Your task to perform on an android device: Search for Mexican restaurants on Maps Image 0: 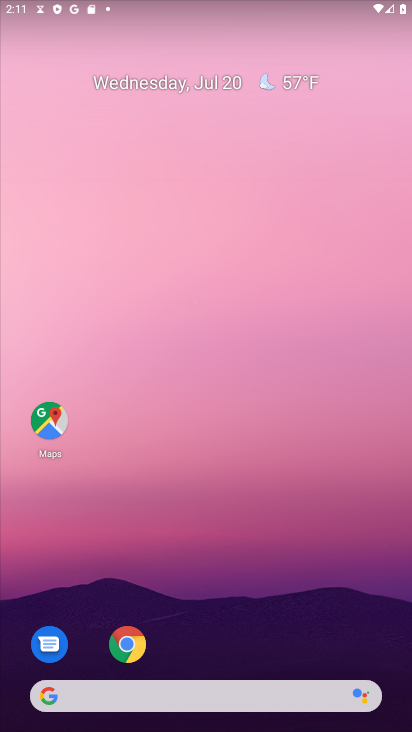
Step 0: drag from (241, 563) to (239, 13)
Your task to perform on an android device: Search for Mexican restaurants on Maps Image 1: 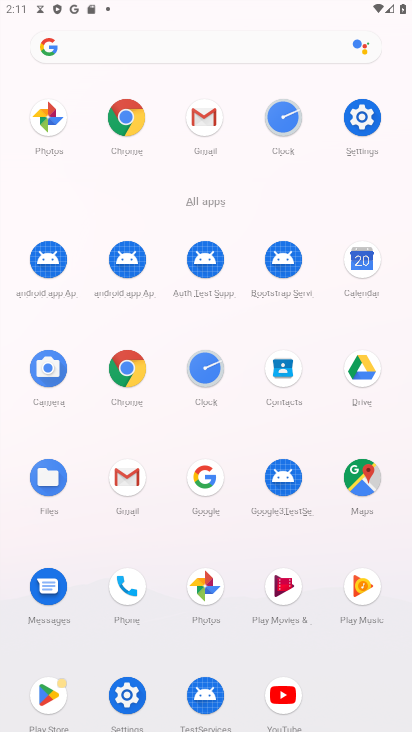
Step 1: click (359, 467)
Your task to perform on an android device: Search for Mexican restaurants on Maps Image 2: 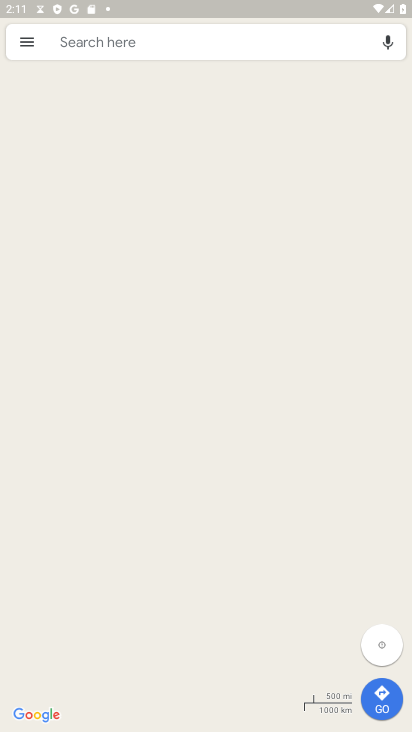
Step 2: click (151, 37)
Your task to perform on an android device: Search for Mexican restaurants on Maps Image 3: 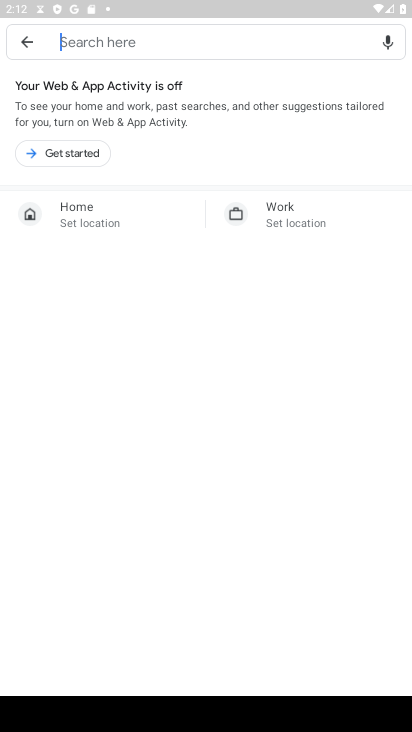
Step 3: click (87, 150)
Your task to perform on an android device: Search for Mexican restaurants on Maps Image 4: 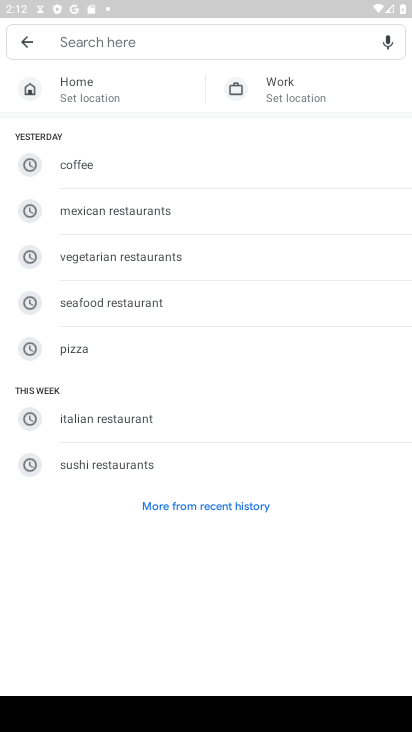
Step 4: click (116, 206)
Your task to perform on an android device: Search for Mexican restaurants on Maps Image 5: 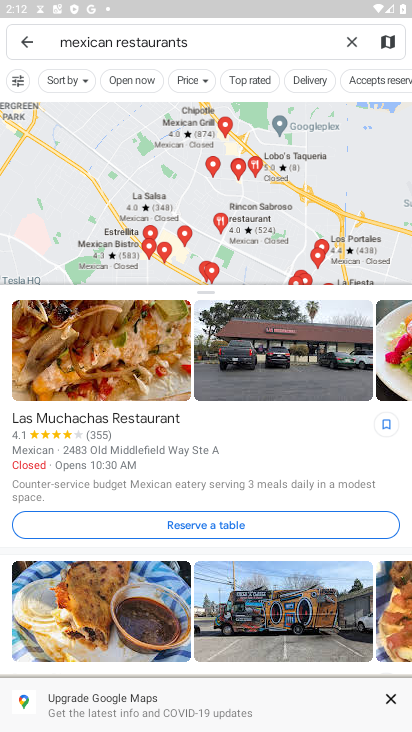
Step 5: task complete